Your task to perform on an android device: turn on notifications settings in the gmail app Image 0: 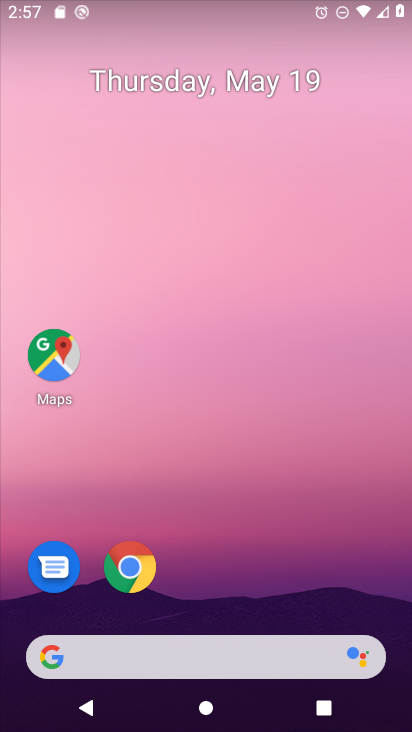
Step 0: drag from (266, 555) to (214, 74)
Your task to perform on an android device: turn on notifications settings in the gmail app Image 1: 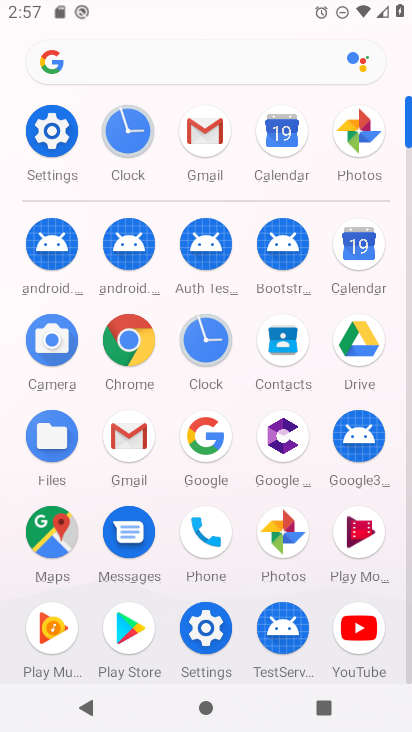
Step 1: click (215, 142)
Your task to perform on an android device: turn on notifications settings in the gmail app Image 2: 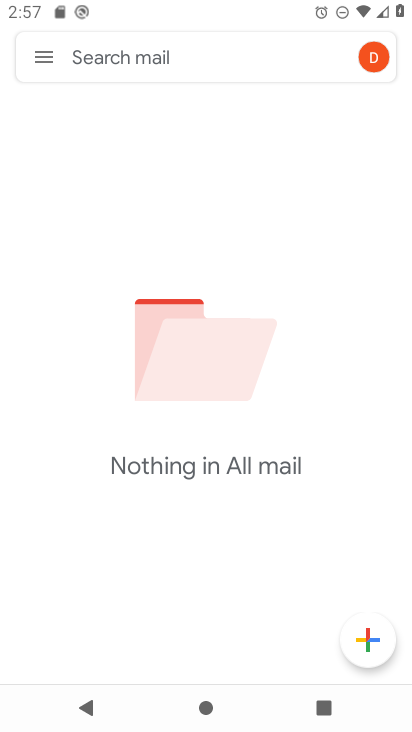
Step 2: click (44, 52)
Your task to perform on an android device: turn on notifications settings in the gmail app Image 3: 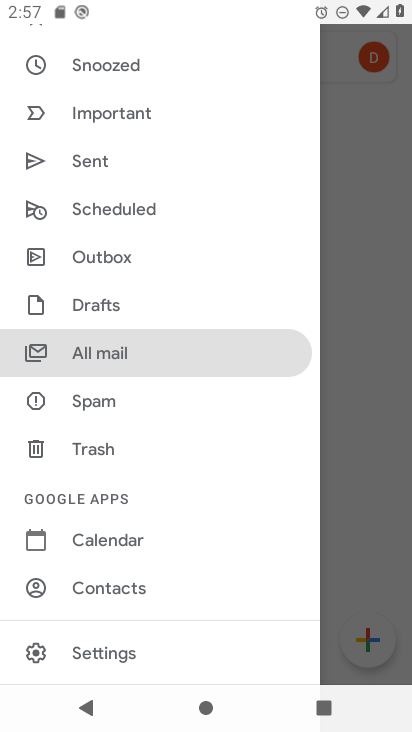
Step 3: click (121, 642)
Your task to perform on an android device: turn on notifications settings in the gmail app Image 4: 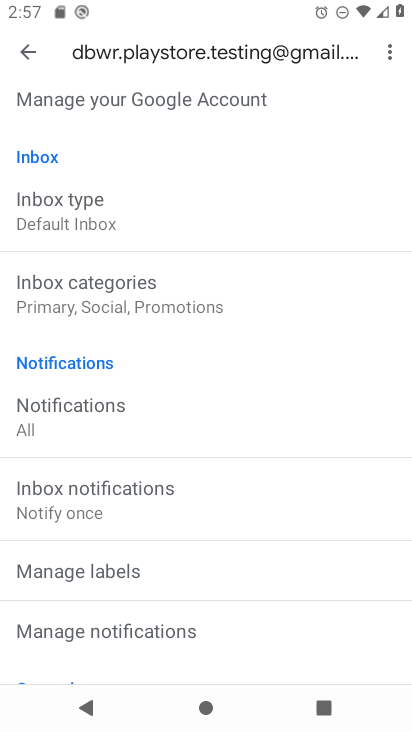
Step 4: click (197, 630)
Your task to perform on an android device: turn on notifications settings in the gmail app Image 5: 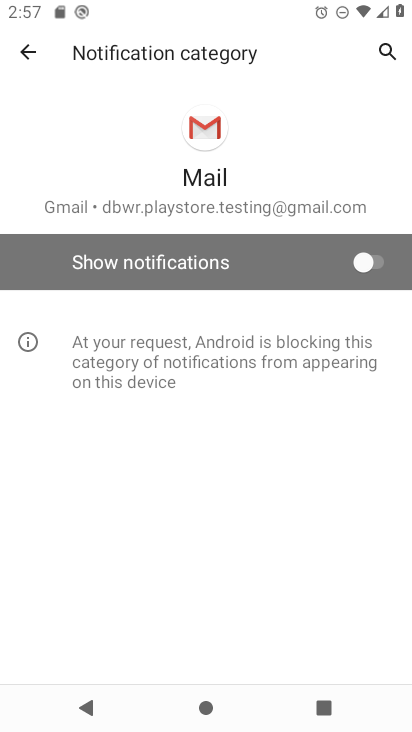
Step 5: click (371, 260)
Your task to perform on an android device: turn on notifications settings in the gmail app Image 6: 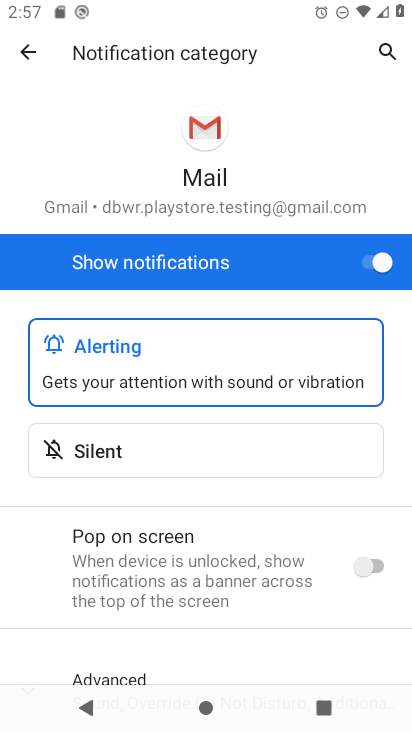
Step 6: task complete